Your task to perform on an android device: Search for flights from Barcelona to Boston Image 0: 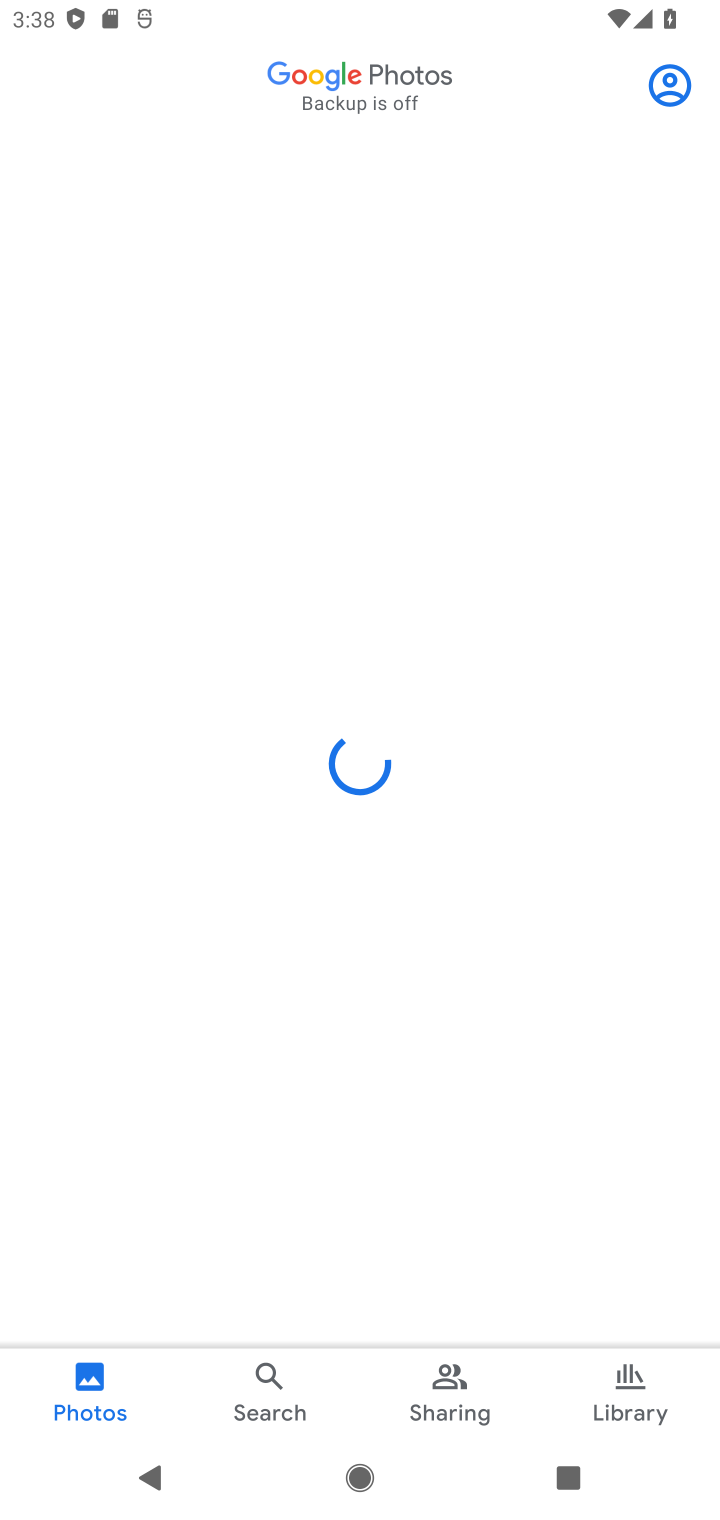
Step 0: press home button
Your task to perform on an android device: Search for flights from Barcelona to Boston Image 1: 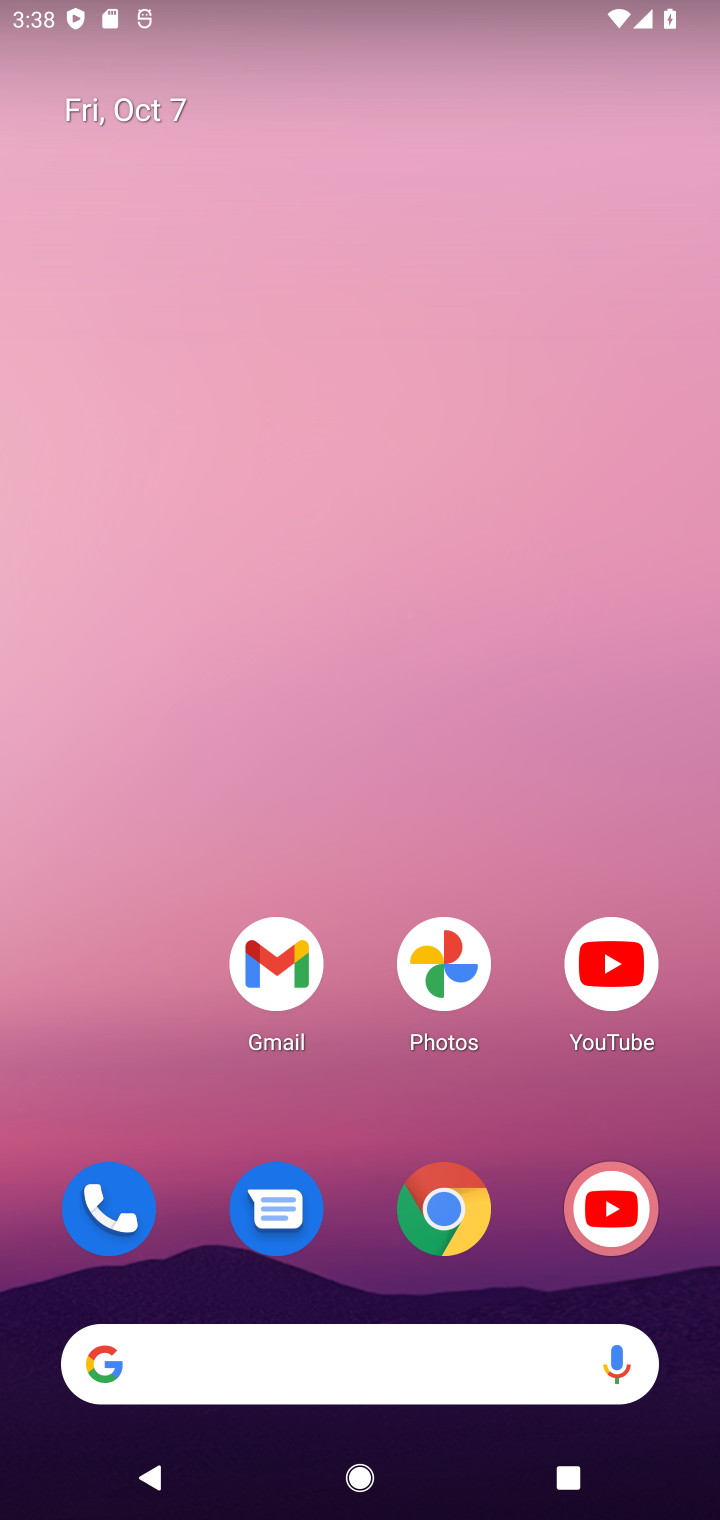
Step 1: click (469, 1358)
Your task to perform on an android device: Search for flights from Barcelona to Boston Image 2: 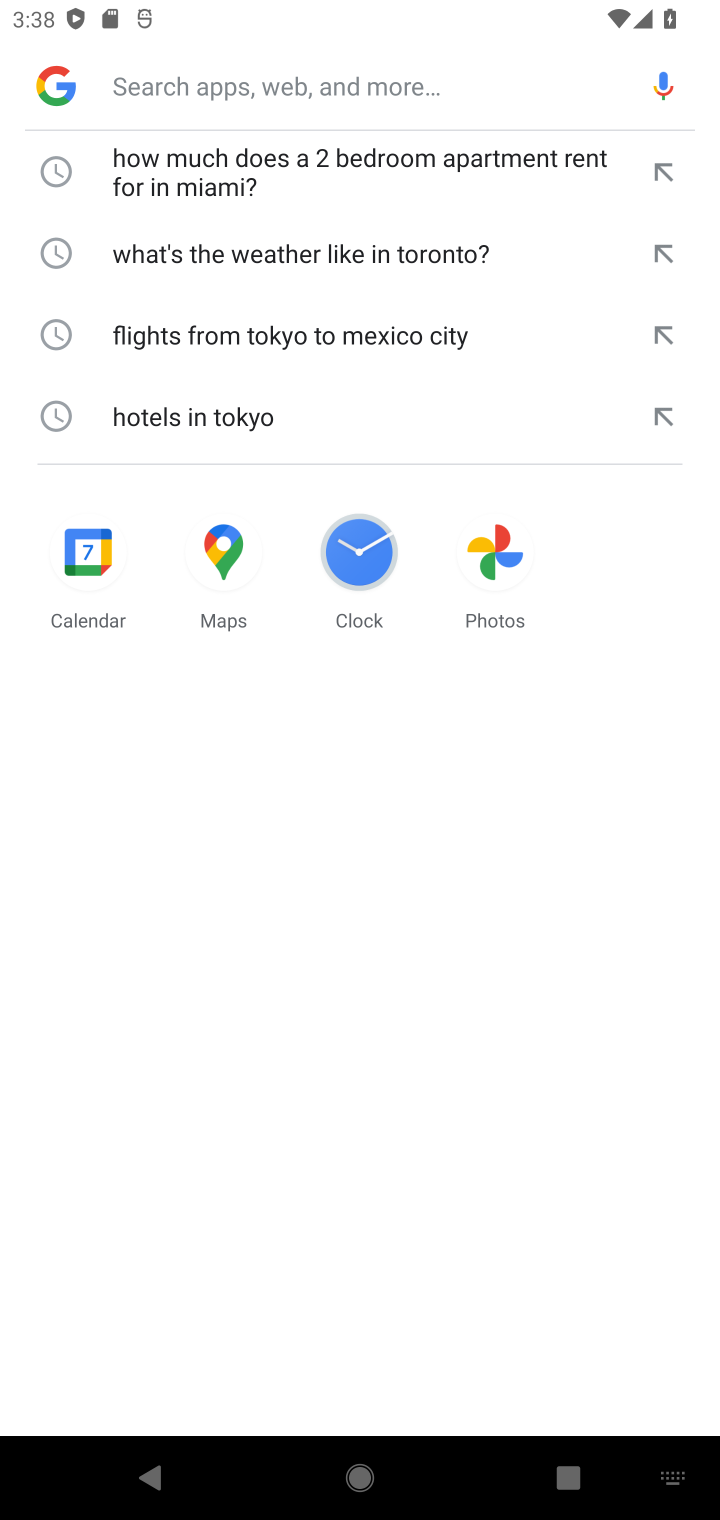
Step 2: type "flights from Barcelona to Boston"
Your task to perform on an android device: Search for flights from Barcelona to Boston Image 3: 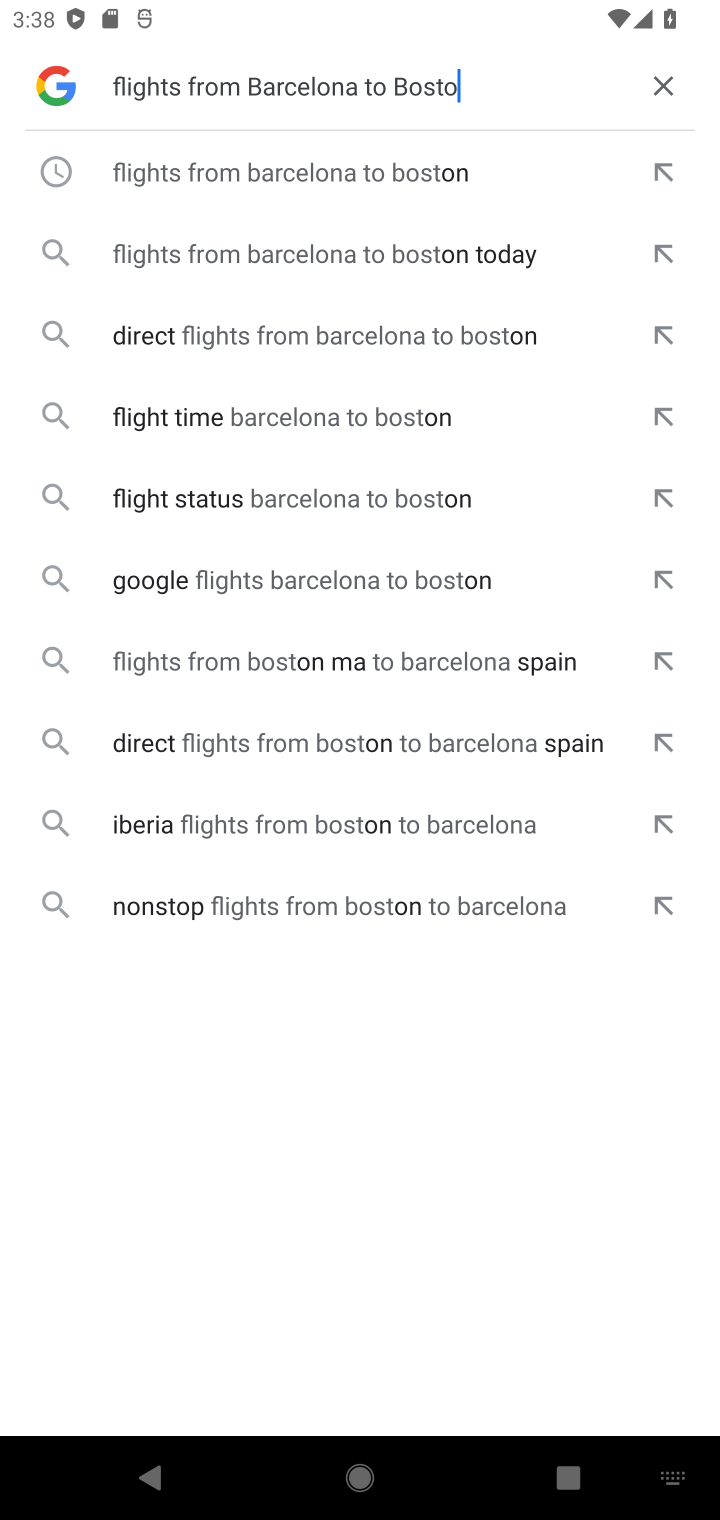
Step 3: press enter
Your task to perform on an android device: Search for flights from Barcelona to Boston Image 4: 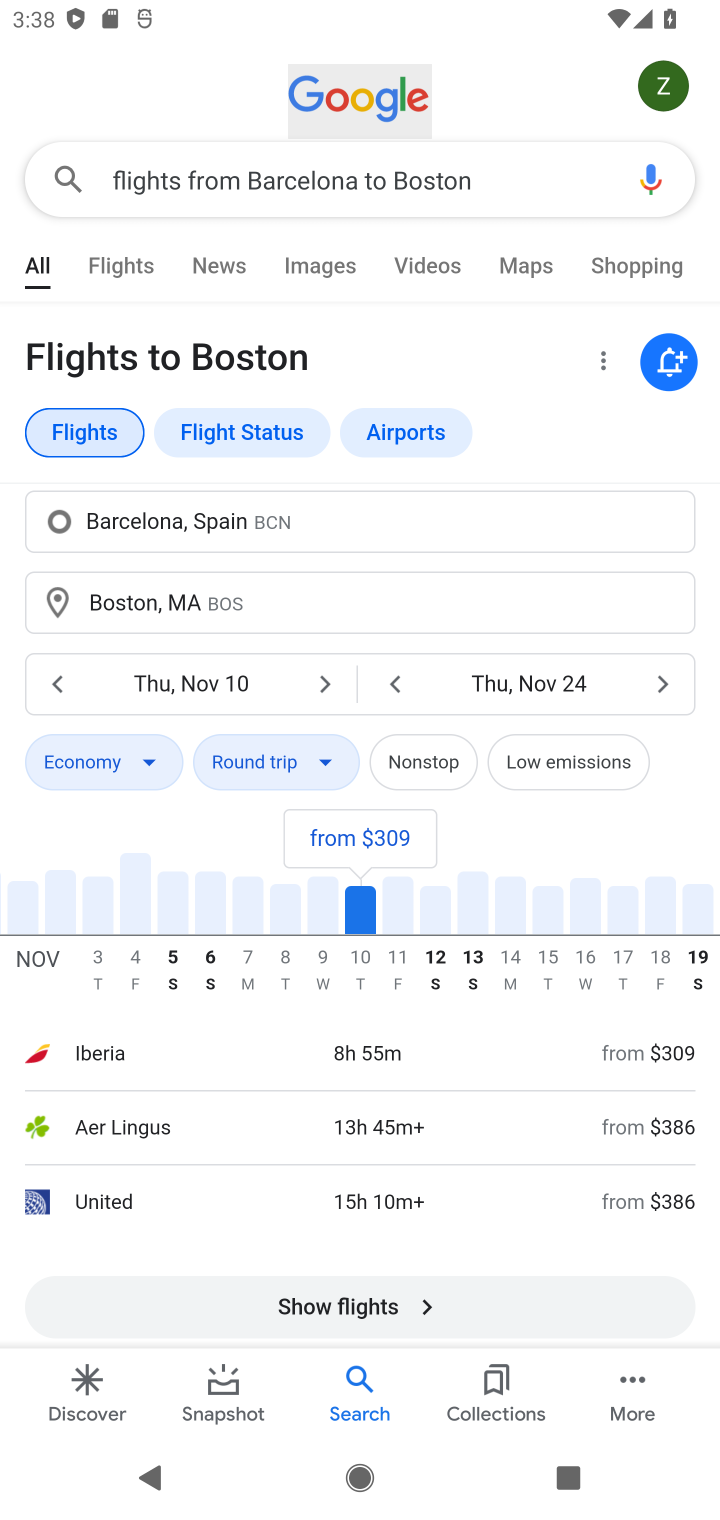
Step 4: click (357, 1310)
Your task to perform on an android device: Search for flights from Barcelona to Boston Image 5: 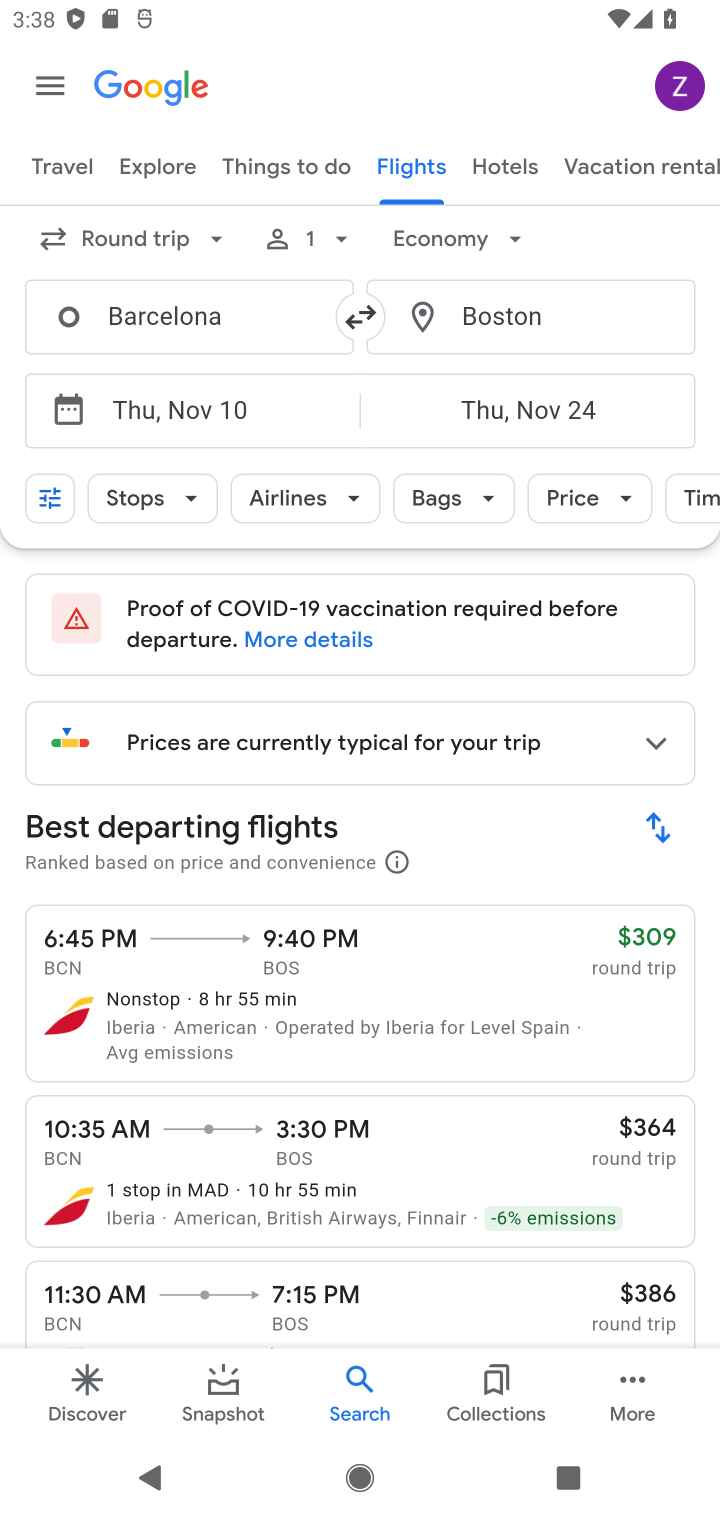
Step 5: task complete